Your task to perform on an android device: check battery use Image 0: 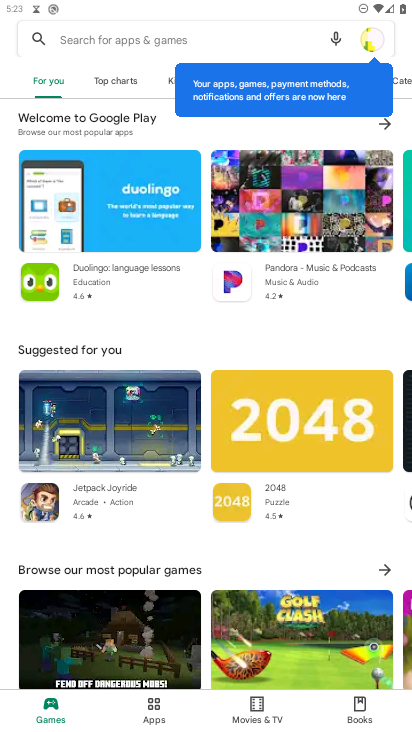
Step 0: press home button
Your task to perform on an android device: check battery use Image 1: 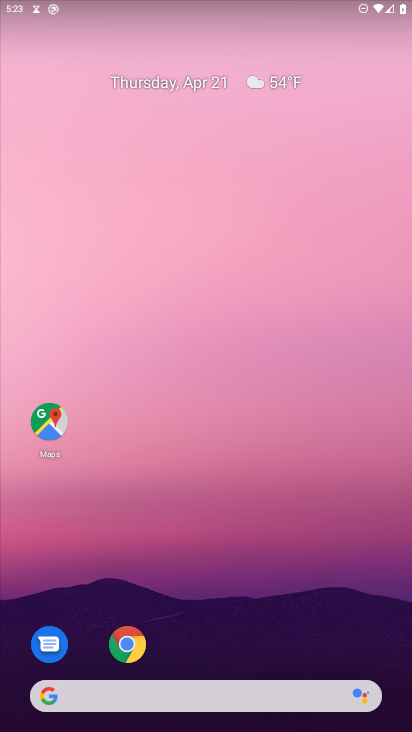
Step 1: drag from (242, 680) to (245, 359)
Your task to perform on an android device: check battery use Image 2: 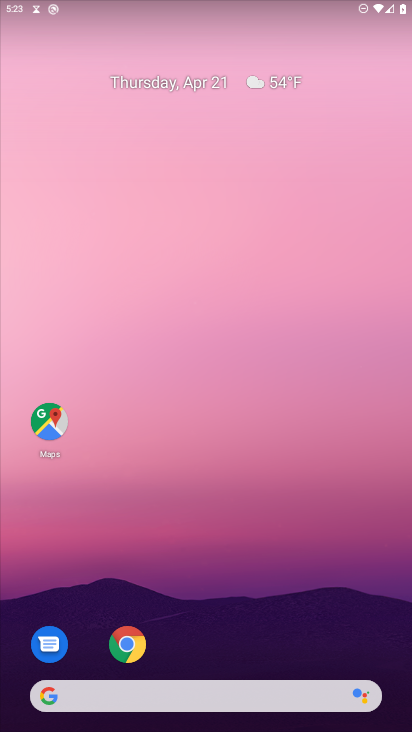
Step 2: drag from (208, 682) to (254, 364)
Your task to perform on an android device: check battery use Image 3: 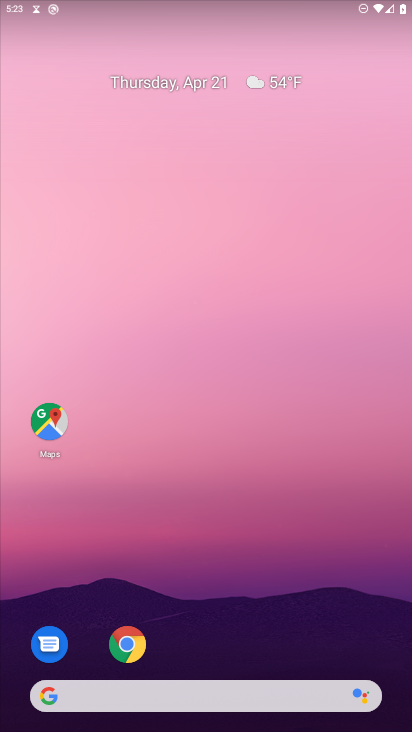
Step 3: drag from (175, 677) to (280, 286)
Your task to perform on an android device: check battery use Image 4: 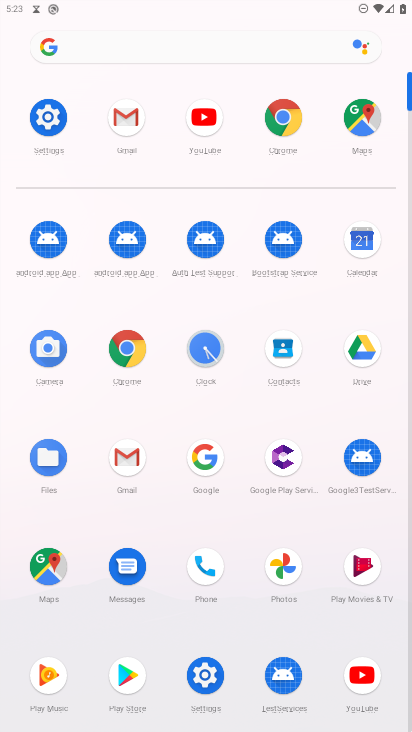
Step 4: click (51, 113)
Your task to perform on an android device: check battery use Image 5: 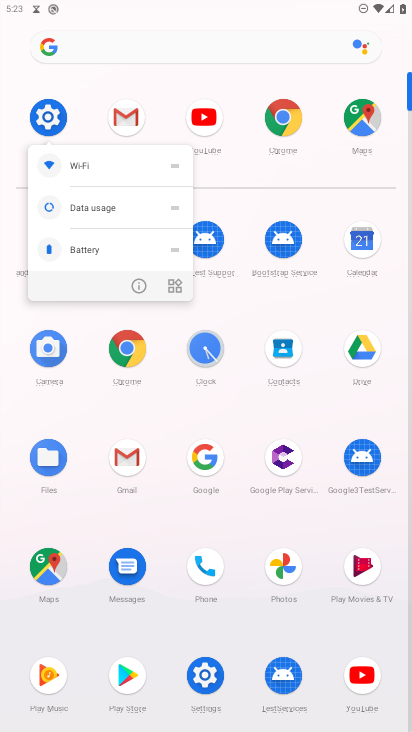
Step 5: click (47, 119)
Your task to perform on an android device: check battery use Image 6: 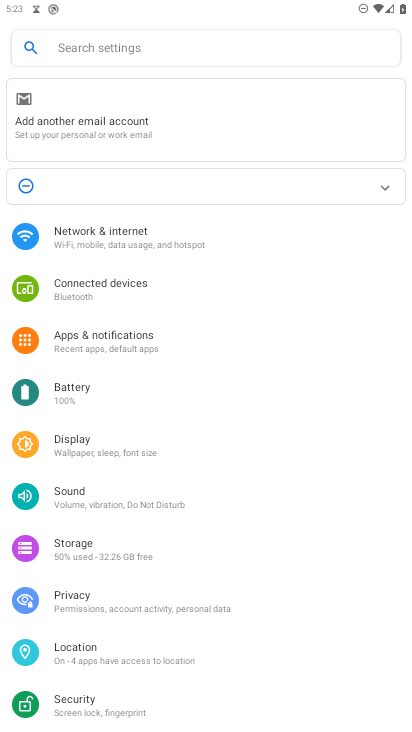
Step 6: click (57, 390)
Your task to perform on an android device: check battery use Image 7: 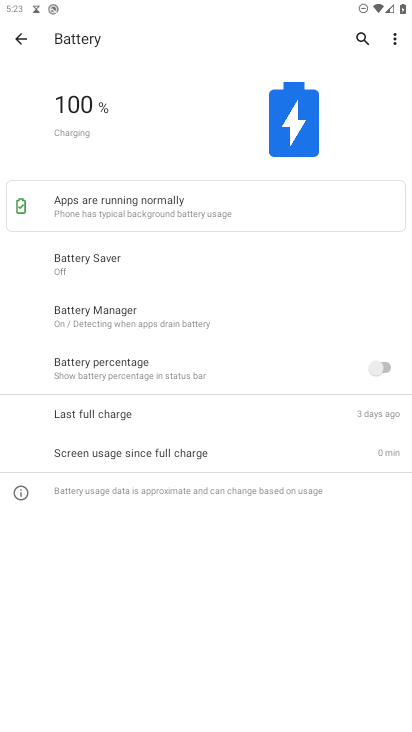
Step 7: click (397, 39)
Your task to perform on an android device: check battery use Image 8: 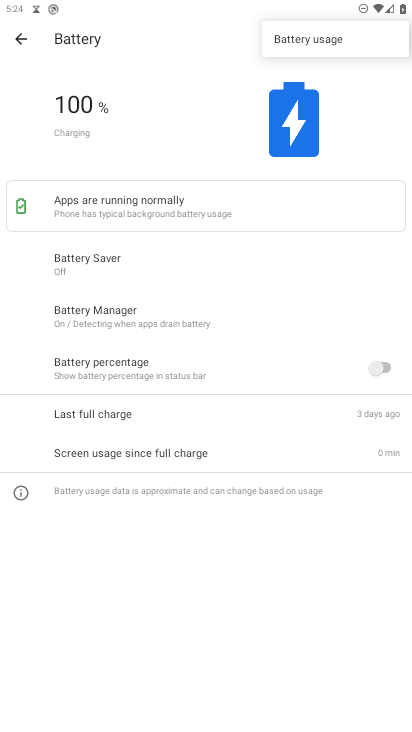
Step 8: click (336, 42)
Your task to perform on an android device: check battery use Image 9: 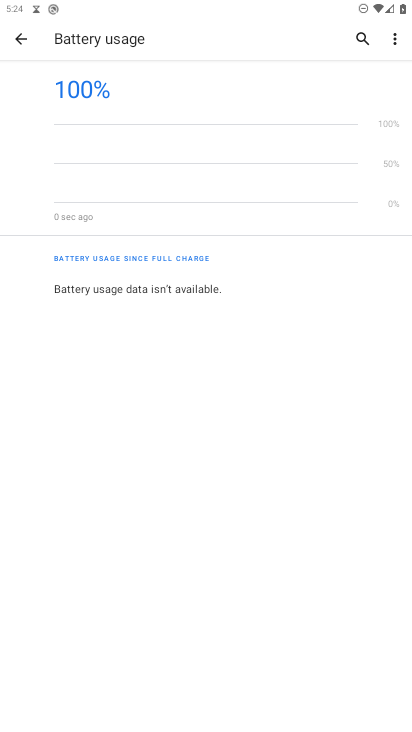
Step 9: task complete